Your task to perform on an android device: turn off airplane mode Image 0: 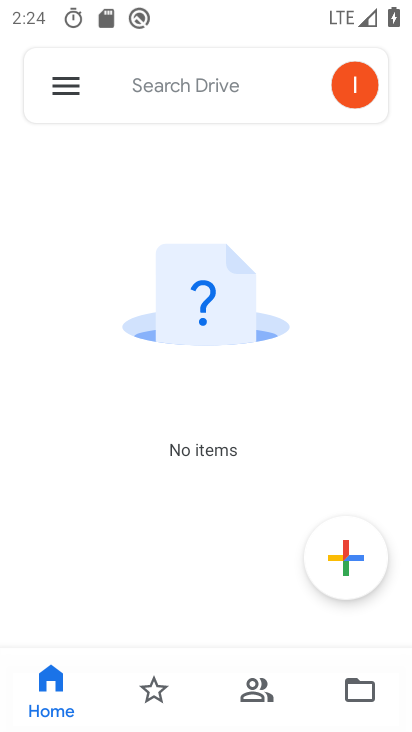
Step 0: press home button
Your task to perform on an android device: turn off airplane mode Image 1: 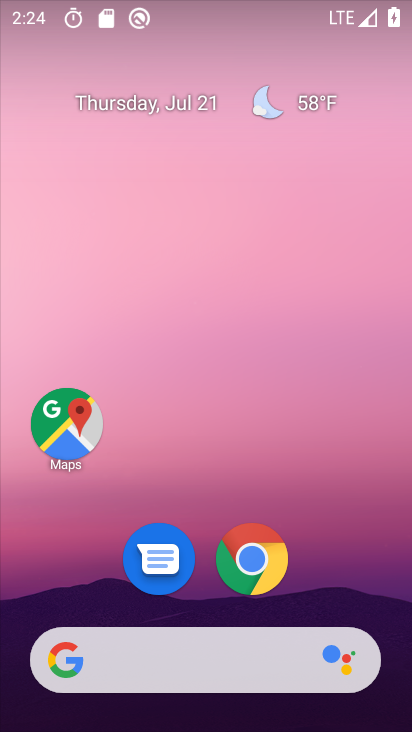
Step 1: drag from (352, 543) to (361, 126)
Your task to perform on an android device: turn off airplane mode Image 2: 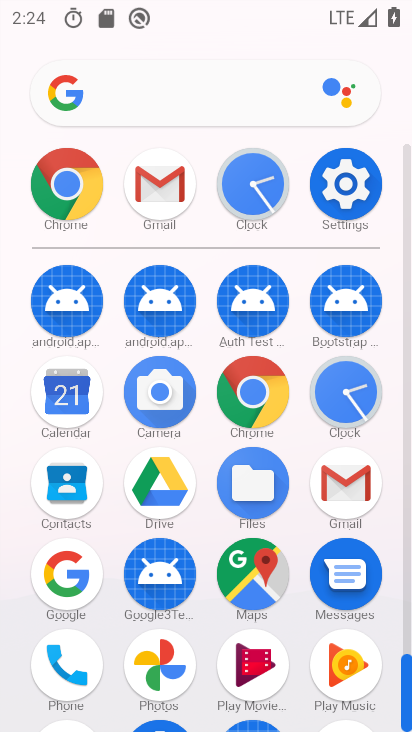
Step 2: click (354, 200)
Your task to perform on an android device: turn off airplane mode Image 3: 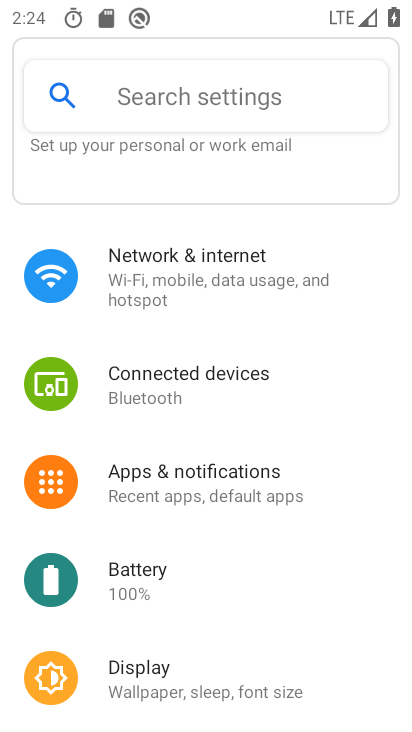
Step 3: drag from (343, 346) to (359, 498)
Your task to perform on an android device: turn off airplane mode Image 4: 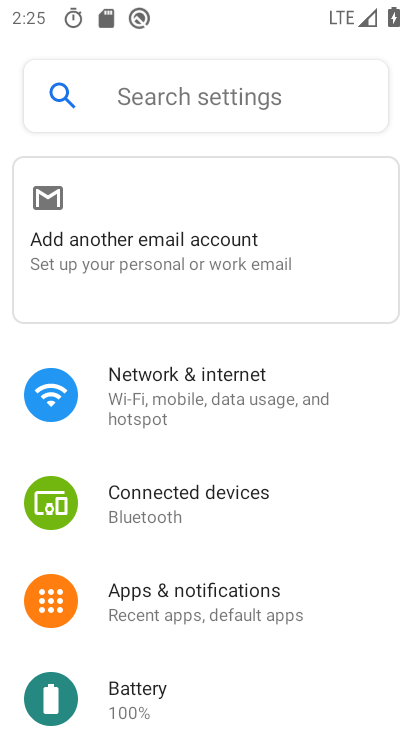
Step 4: drag from (362, 413) to (371, 520)
Your task to perform on an android device: turn off airplane mode Image 5: 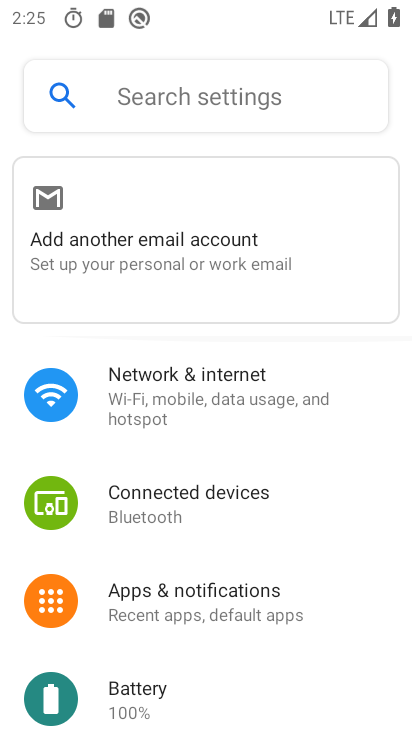
Step 5: drag from (367, 559) to (362, 459)
Your task to perform on an android device: turn off airplane mode Image 6: 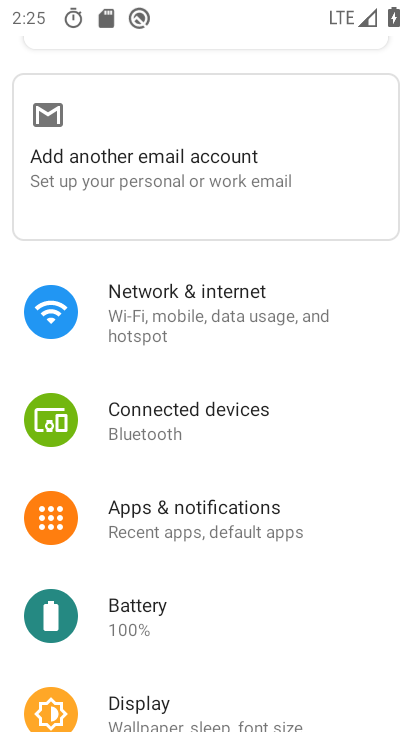
Step 6: click (331, 323)
Your task to perform on an android device: turn off airplane mode Image 7: 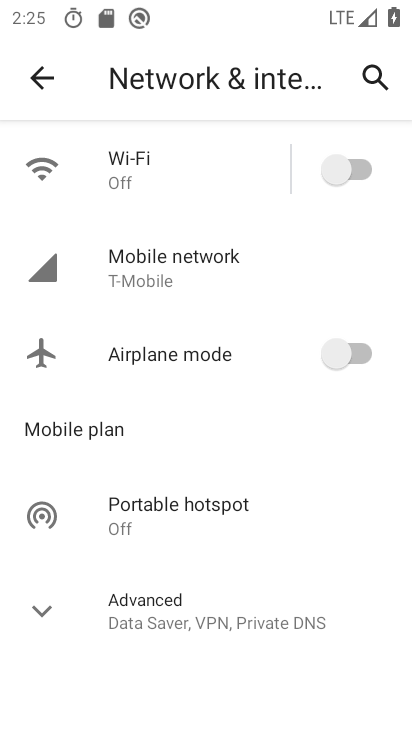
Step 7: task complete